Your task to perform on an android device: Open Youtube and go to "Your channel" Image 0: 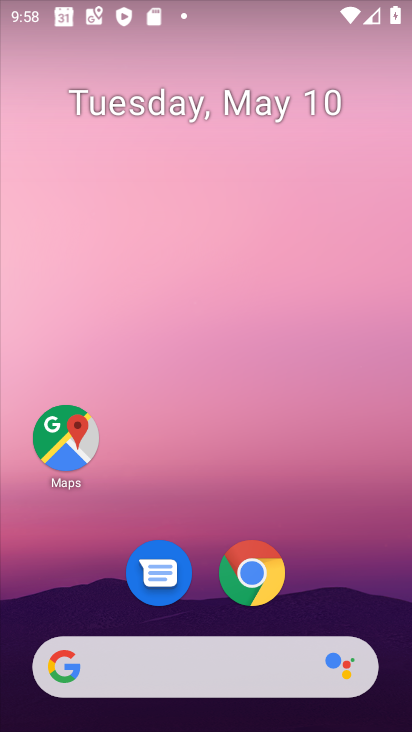
Step 0: drag from (327, 559) to (224, 116)
Your task to perform on an android device: Open Youtube and go to "Your channel" Image 1: 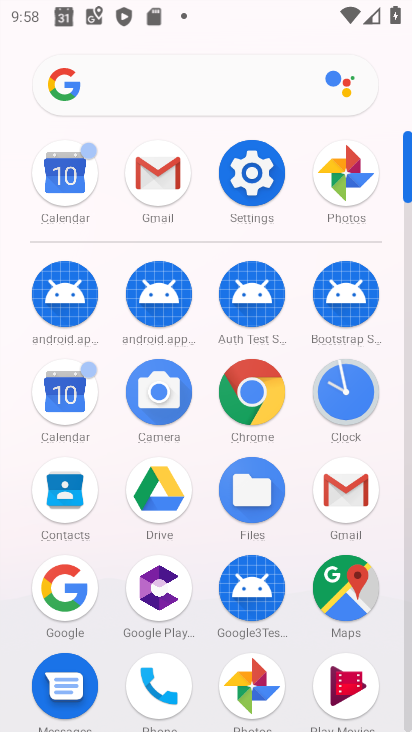
Step 1: click (405, 624)
Your task to perform on an android device: Open Youtube and go to "Your channel" Image 2: 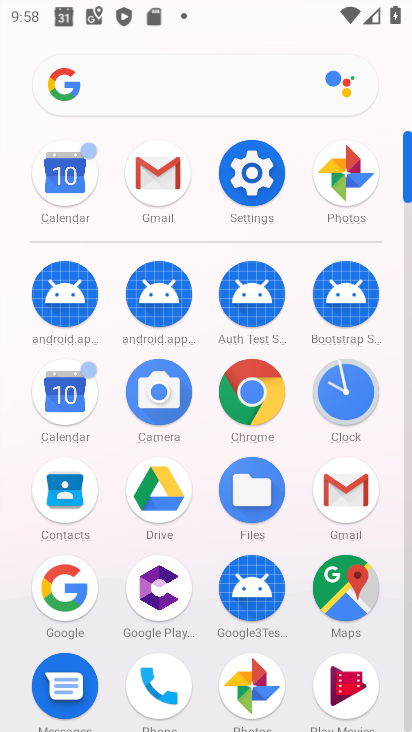
Step 2: click (405, 624)
Your task to perform on an android device: Open Youtube and go to "Your channel" Image 3: 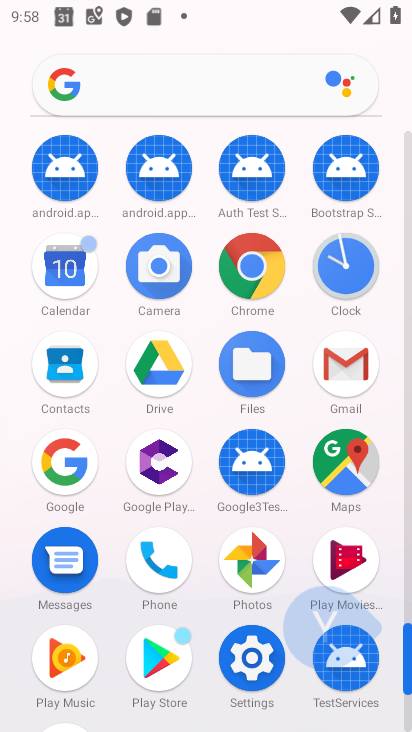
Step 3: click (405, 624)
Your task to perform on an android device: Open Youtube and go to "Your channel" Image 4: 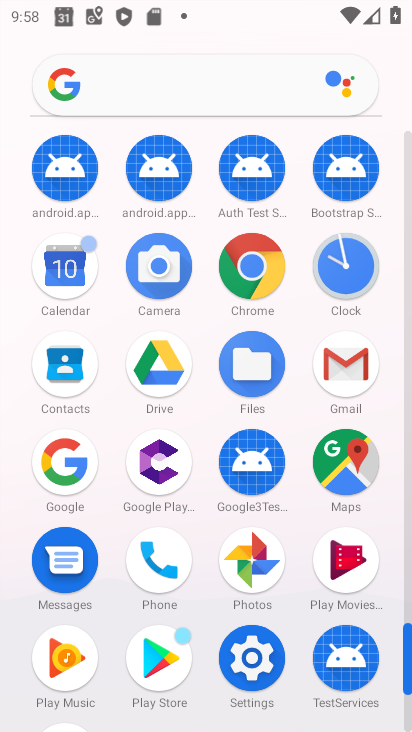
Step 4: click (405, 717)
Your task to perform on an android device: Open Youtube and go to "Your channel" Image 5: 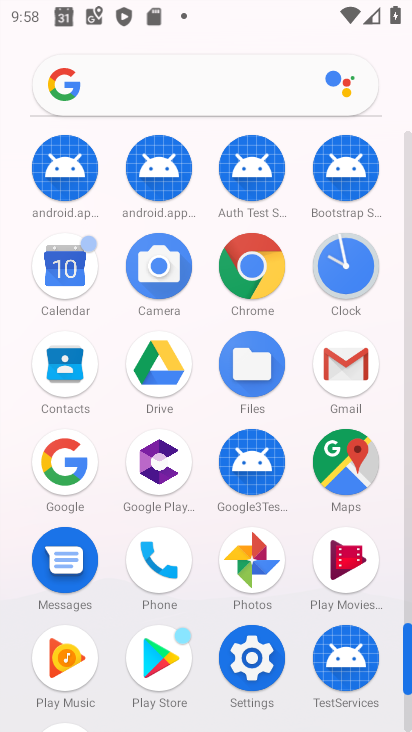
Step 5: click (405, 717)
Your task to perform on an android device: Open Youtube and go to "Your channel" Image 6: 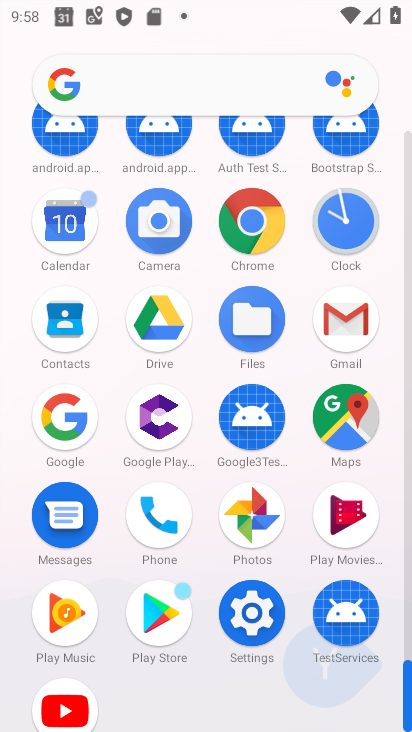
Step 6: click (405, 717)
Your task to perform on an android device: Open Youtube and go to "Your channel" Image 7: 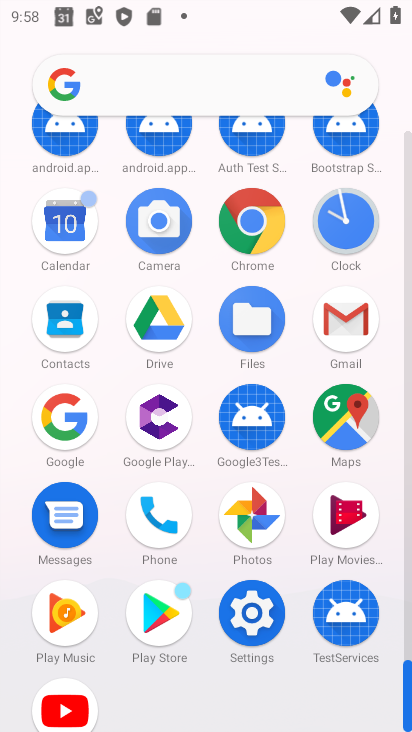
Step 7: click (65, 702)
Your task to perform on an android device: Open Youtube and go to "Your channel" Image 8: 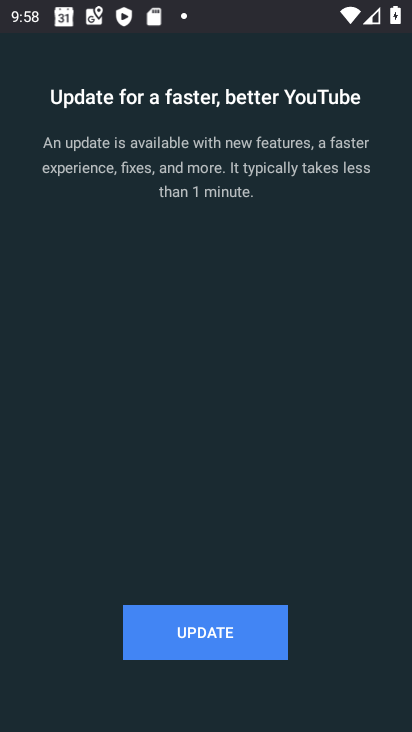
Step 8: click (202, 628)
Your task to perform on an android device: Open Youtube and go to "Your channel" Image 9: 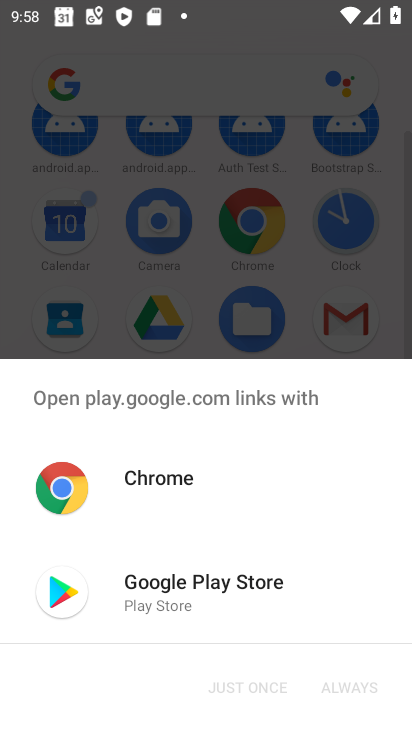
Step 9: click (160, 582)
Your task to perform on an android device: Open Youtube and go to "Your channel" Image 10: 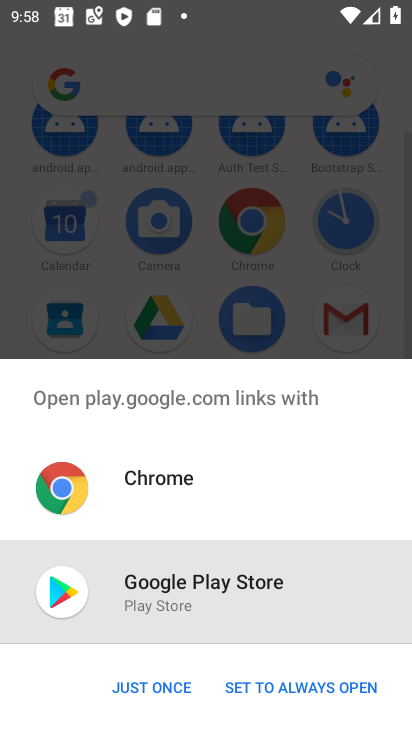
Step 10: click (164, 681)
Your task to perform on an android device: Open Youtube and go to "Your channel" Image 11: 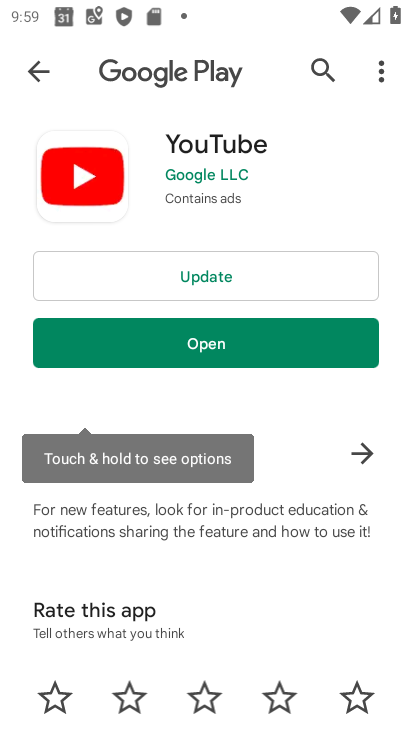
Step 11: click (197, 282)
Your task to perform on an android device: Open Youtube and go to "Your channel" Image 12: 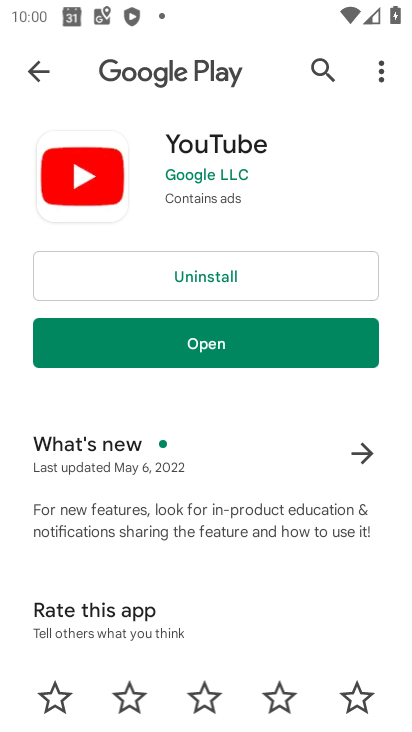
Step 12: click (201, 344)
Your task to perform on an android device: Open Youtube and go to "Your channel" Image 13: 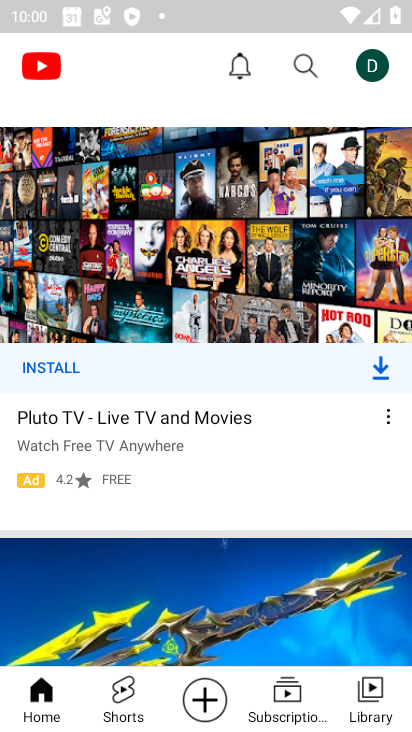
Step 13: click (375, 62)
Your task to perform on an android device: Open Youtube and go to "Your channel" Image 14: 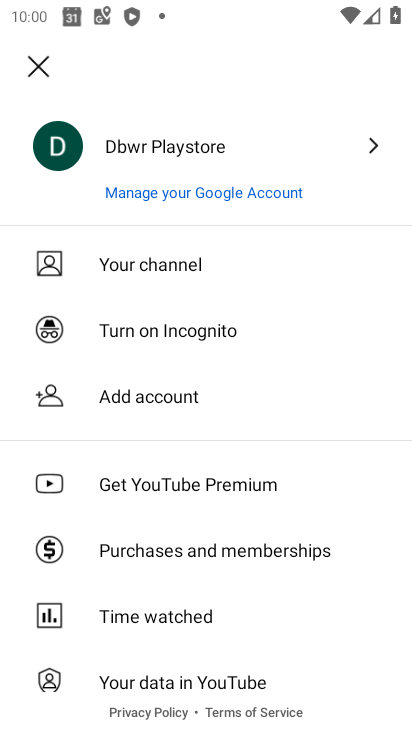
Step 14: click (164, 264)
Your task to perform on an android device: Open Youtube and go to "Your channel" Image 15: 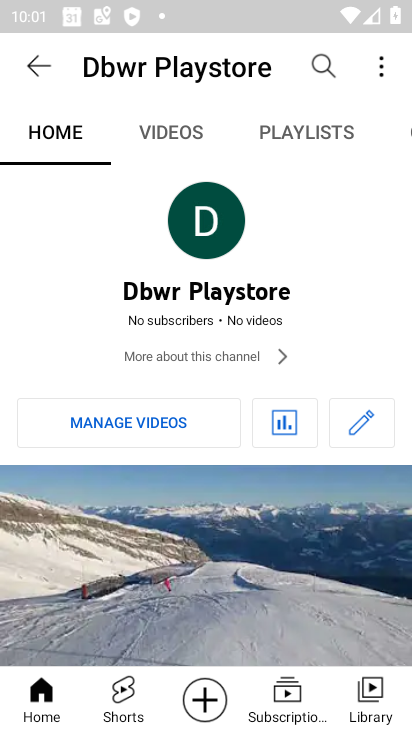
Step 15: task complete